Your task to perform on an android device: open app "DoorDash - Food Delivery" (install if not already installed) Image 0: 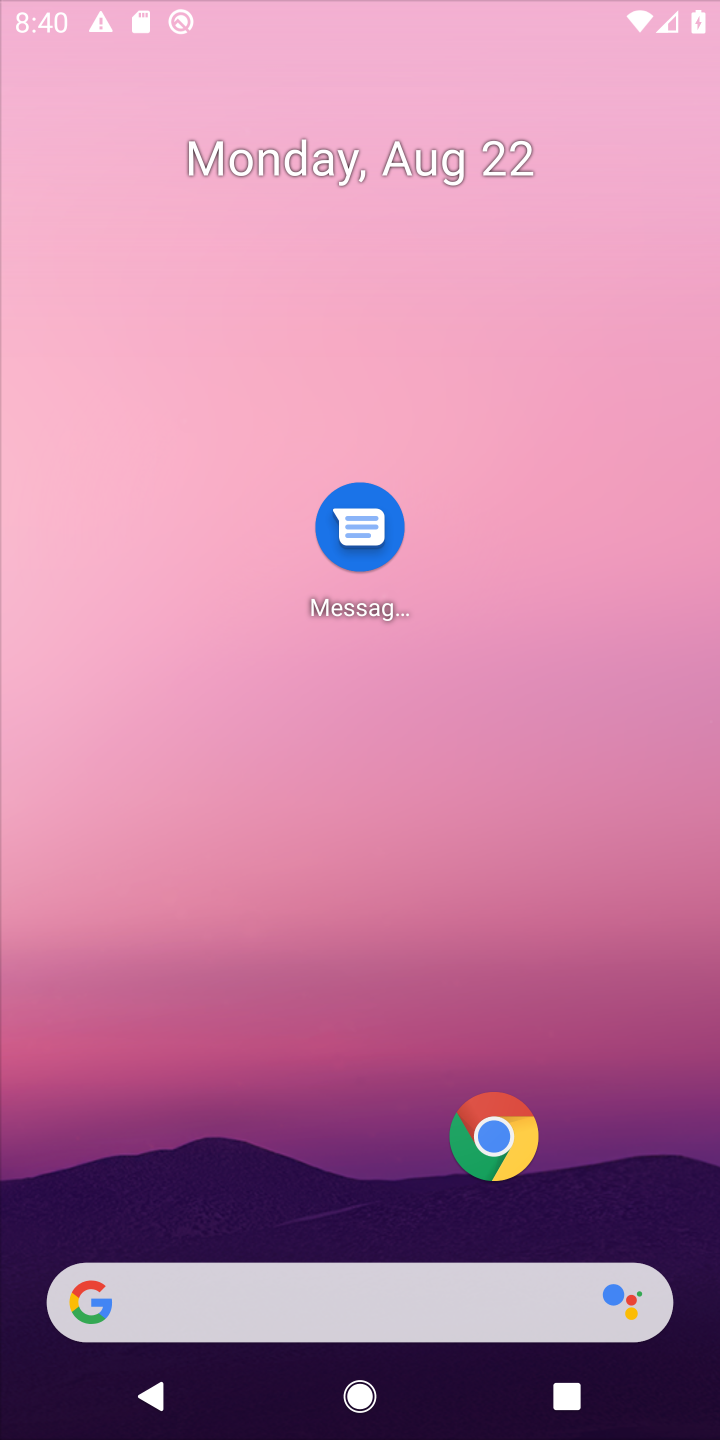
Step 0: click (49, 104)
Your task to perform on an android device: open app "DoorDash - Food Delivery" (install if not already installed) Image 1: 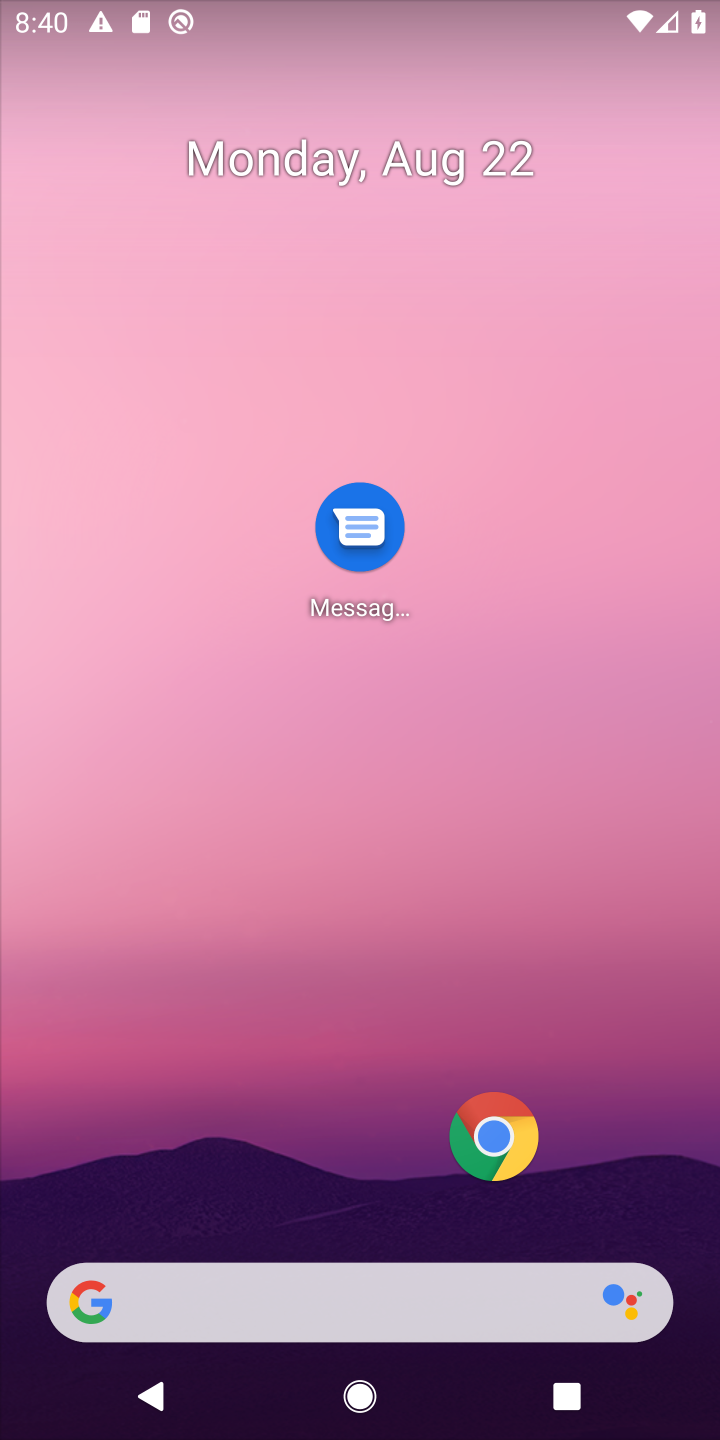
Step 1: drag from (368, 1192) to (360, 85)
Your task to perform on an android device: open app "DoorDash - Food Delivery" (install if not already installed) Image 2: 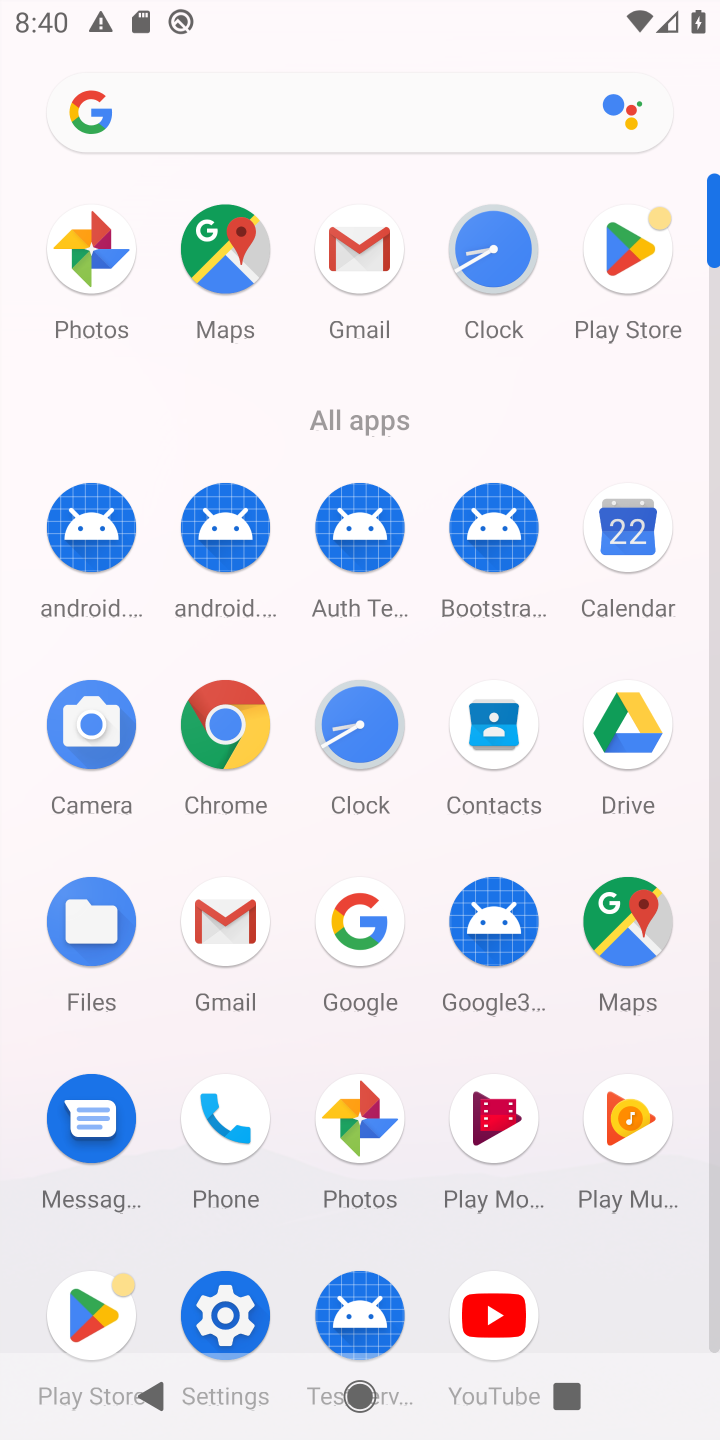
Step 2: click (629, 226)
Your task to perform on an android device: open app "DoorDash - Food Delivery" (install if not already installed) Image 3: 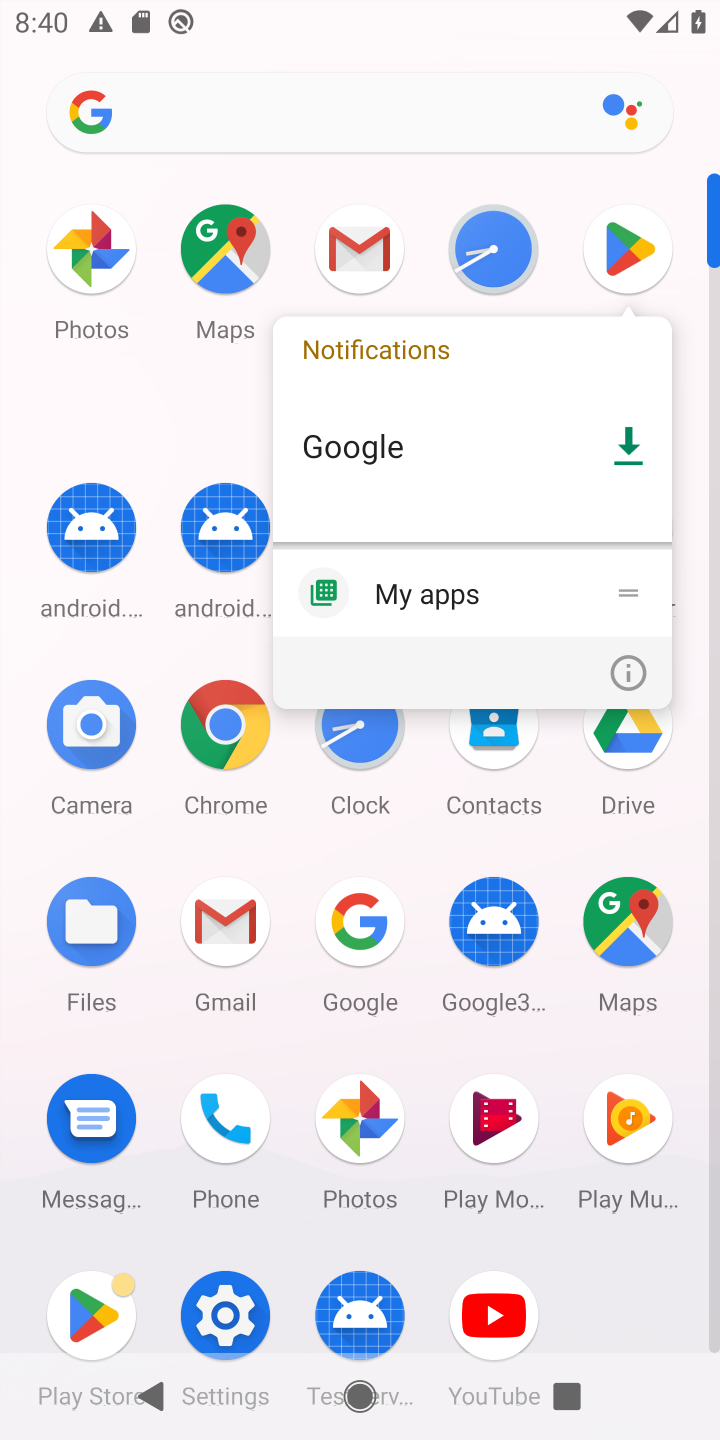
Step 3: click (629, 256)
Your task to perform on an android device: open app "DoorDash - Food Delivery" (install if not already installed) Image 4: 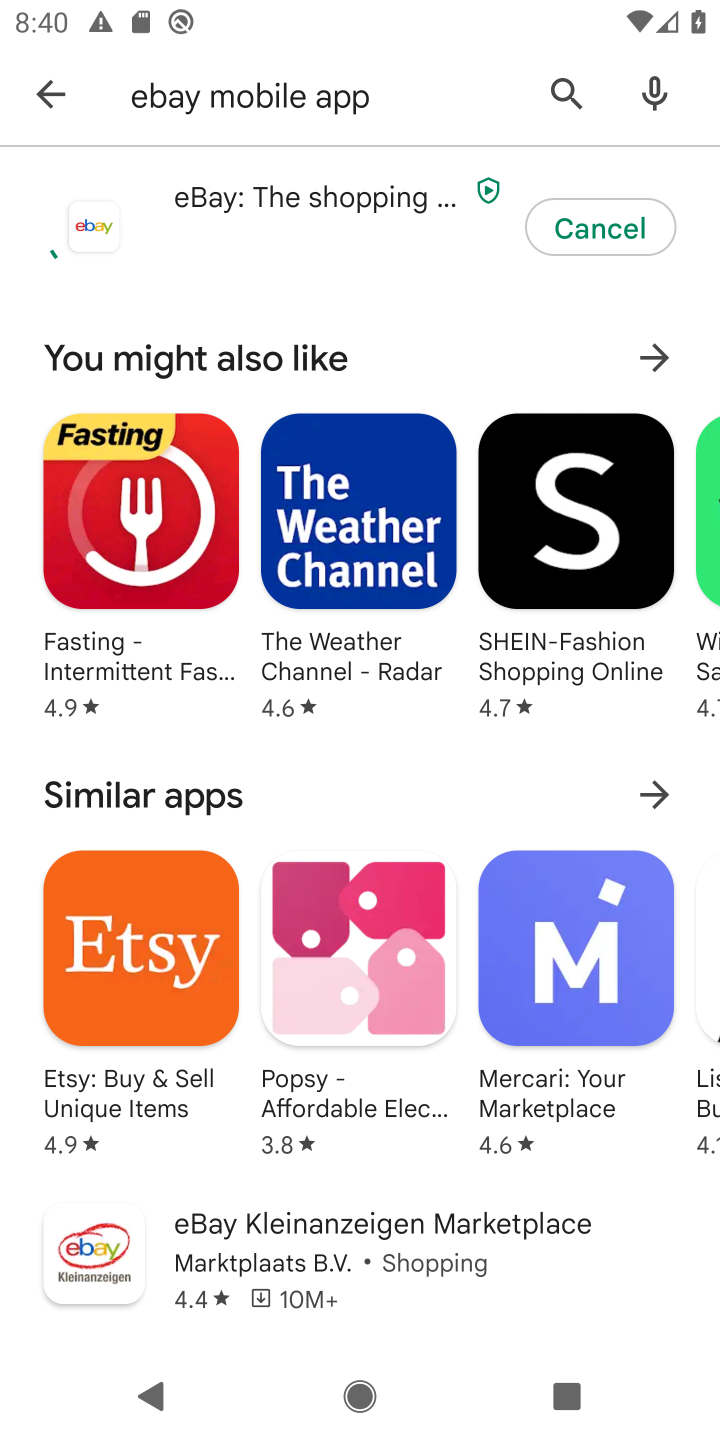
Step 4: click (60, 81)
Your task to perform on an android device: open app "DoorDash - Food Delivery" (install if not already installed) Image 5: 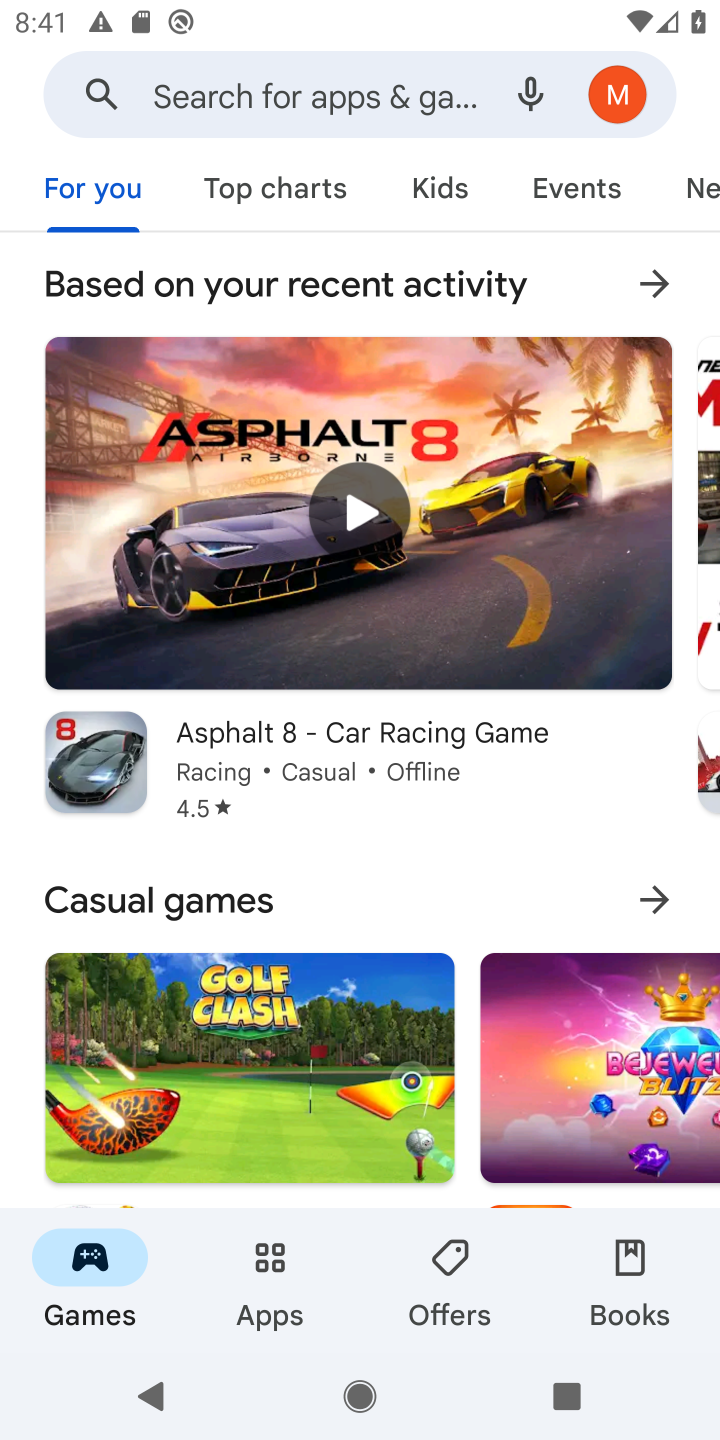
Step 5: click (317, 79)
Your task to perform on an android device: open app "DoorDash - Food Delivery" (install if not already installed) Image 6: 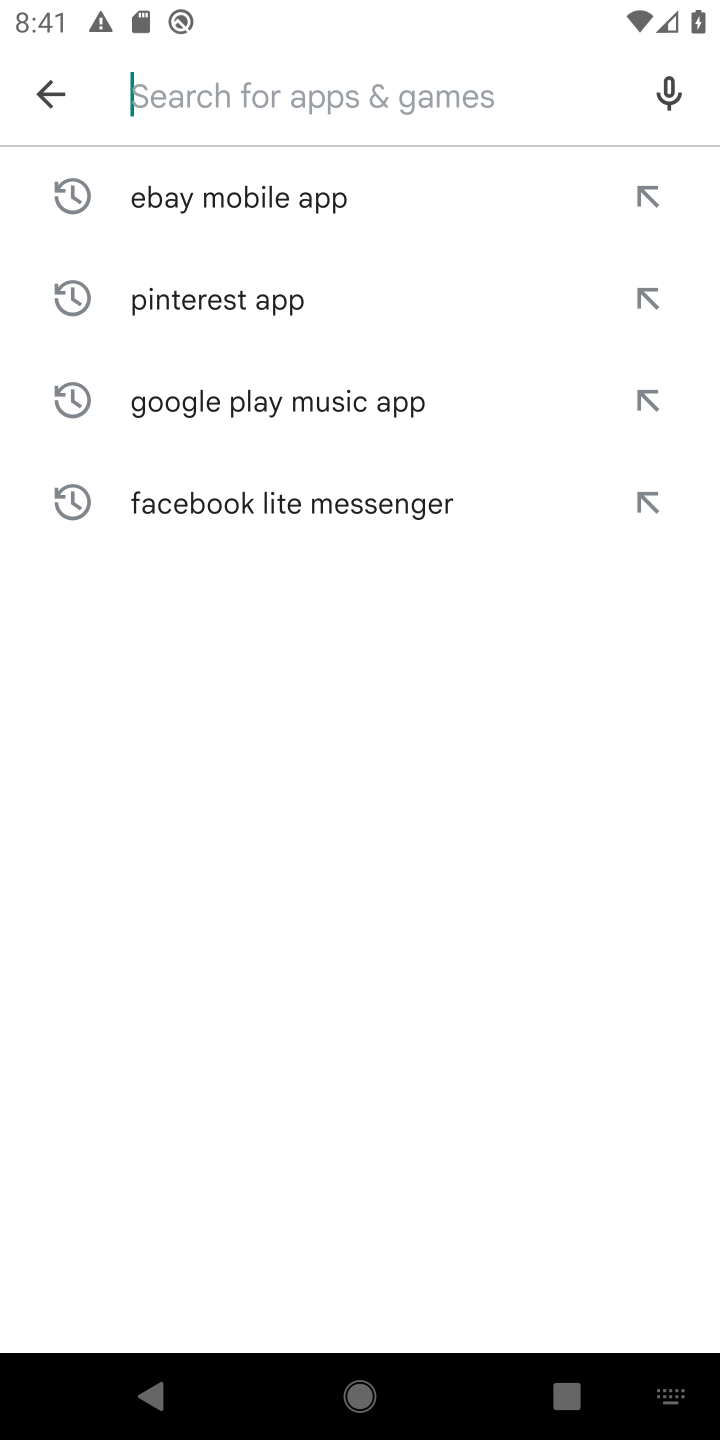
Step 6: type "DoorDash - Food Delivery "
Your task to perform on an android device: open app "DoorDash - Food Delivery" (install if not already installed) Image 7: 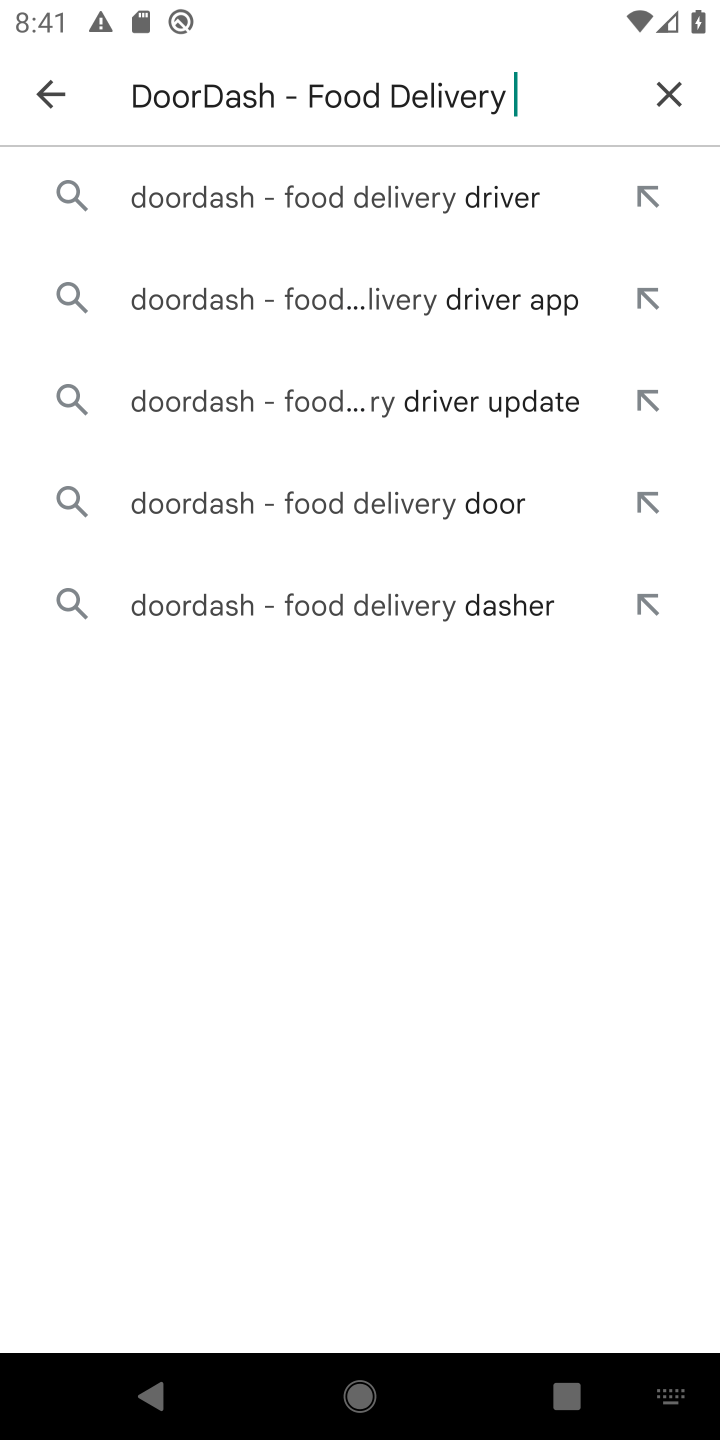
Step 7: click (269, 201)
Your task to perform on an android device: open app "DoorDash - Food Delivery" (install if not already installed) Image 8: 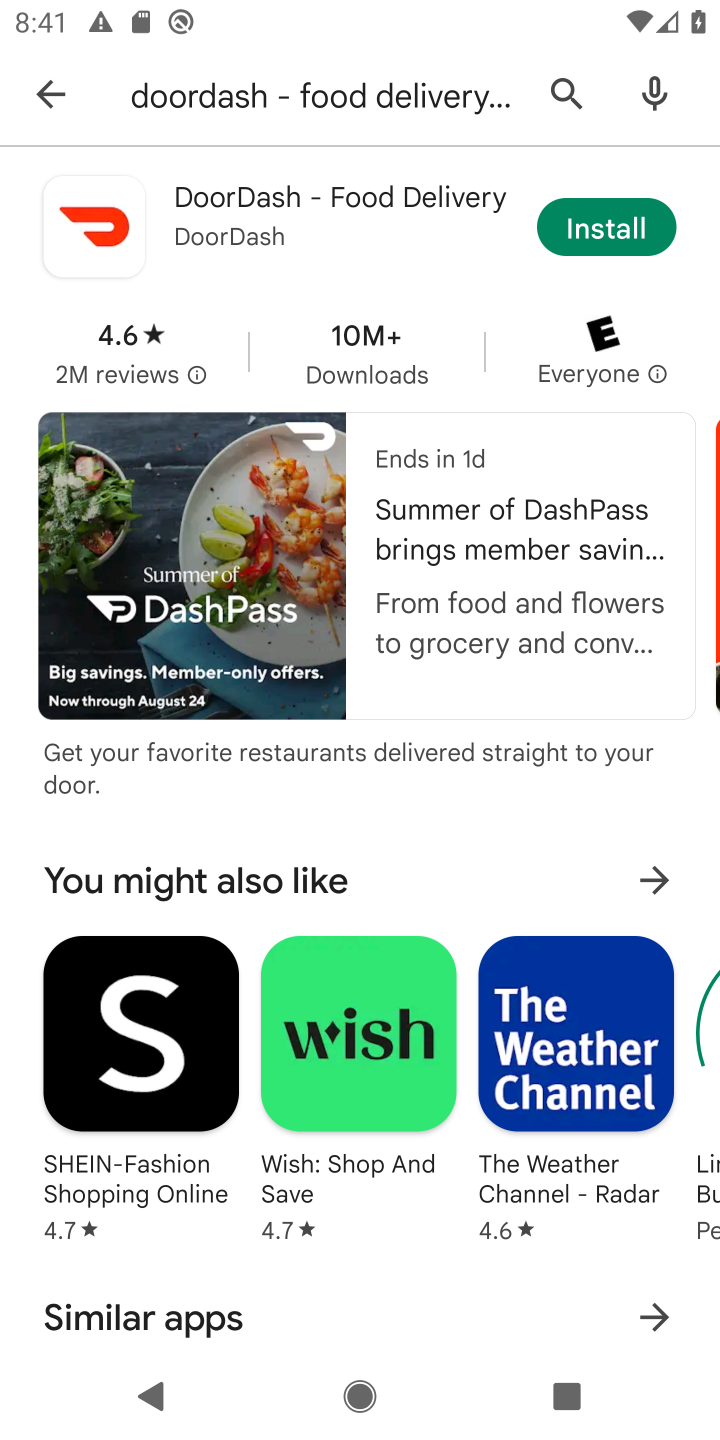
Step 8: click (598, 204)
Your task to perform on an android device: open app "DoorDash - Food Delivery" (install if not already installed) Image 9: 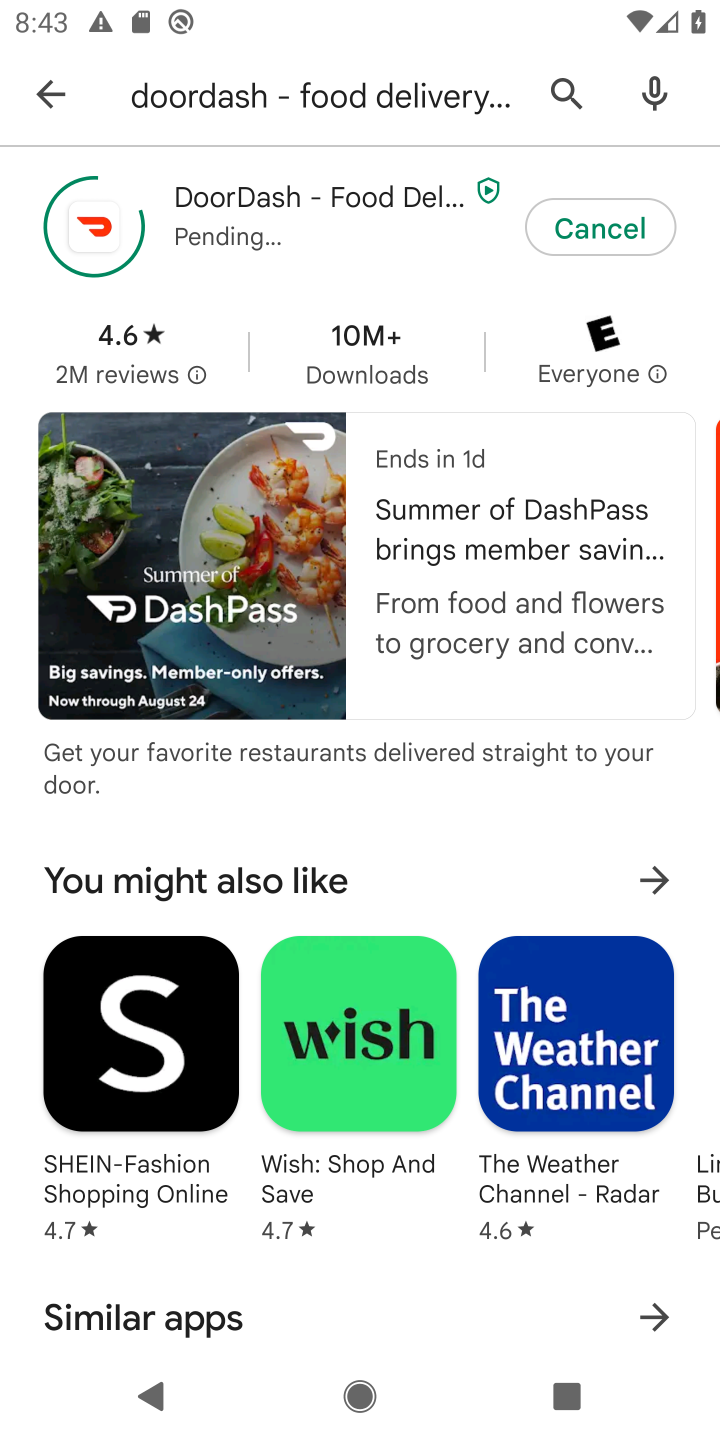
Step 9: task complete